Your task to perform on an android device: open sync settings in chrome Image 0: 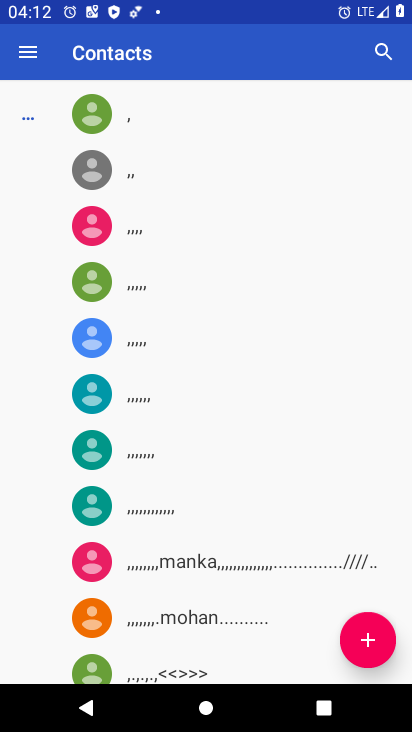
Step 0: press home button
Your task to perform on an android device: open sync settings in chrome Image 1: 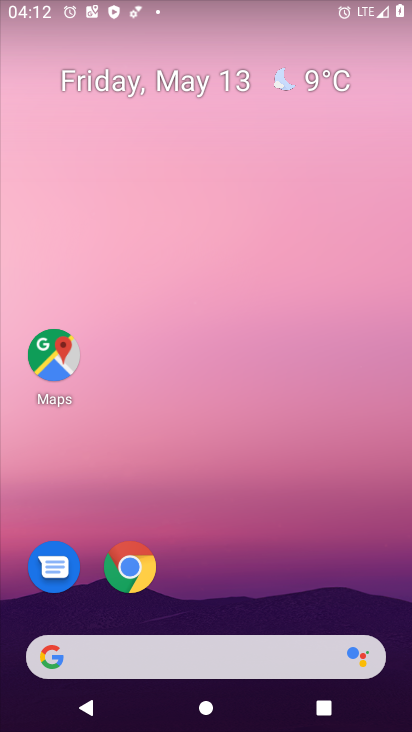
Step 1: click (137, 574)
Your task to perform on an android device: open sync settings in chrome Image 2: 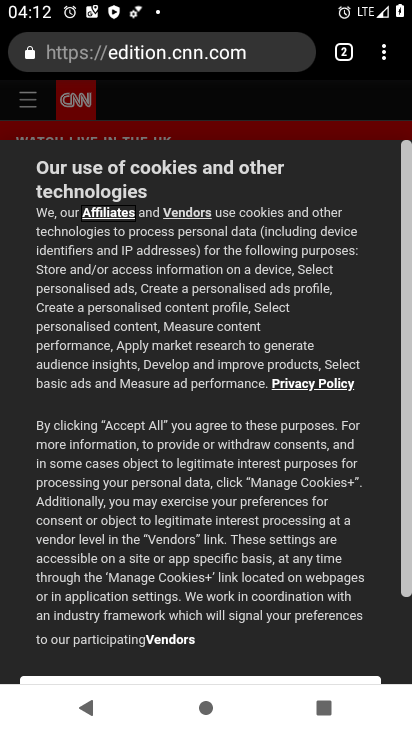
Step 2: click (388, 53)
Your task to perform on an android device: open sync settings in chrome Image 3: 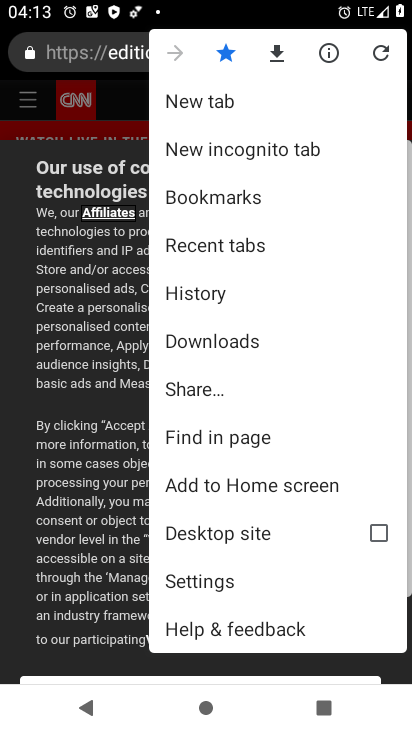
Step 3: click (203, 581)
Your task to perform on an android device: open sync settings in chrome Image 4: 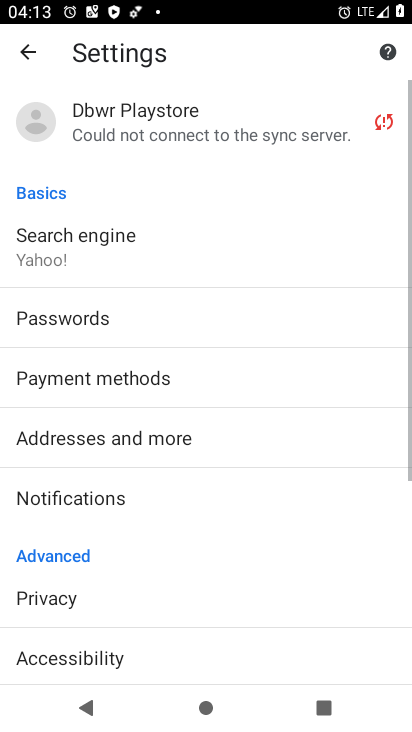
Step 4: click (168, 141)
Your task to perform on an android device: open sync settings in chrome Image 5: 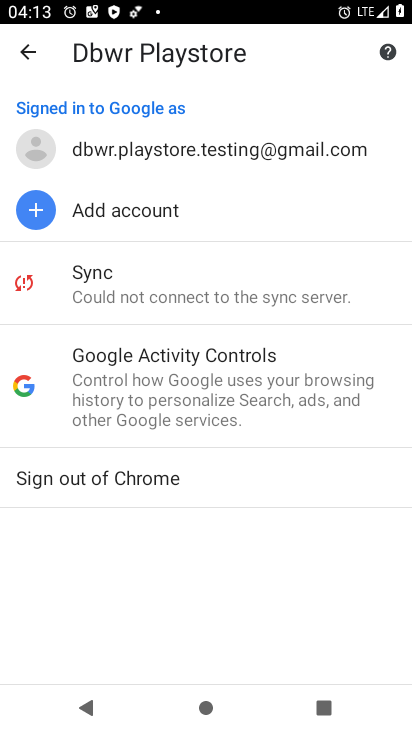
Step 5: click (108, 283)
Your task to perform on an android device: open sync settings in chrome Image 6: 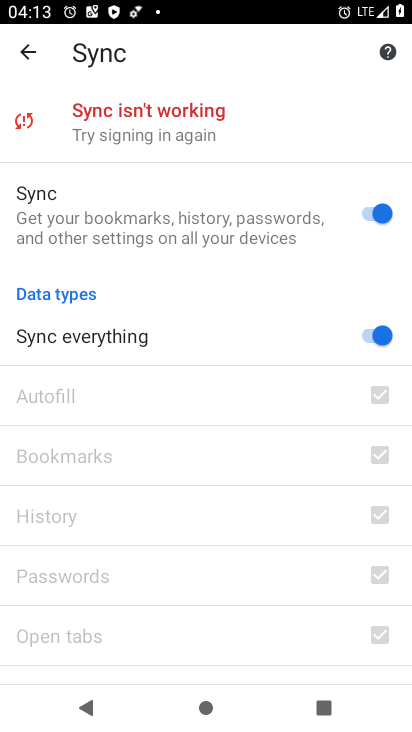
Step 6: task complete